Your task to perform on an android device: Open CNN.com Image 0: 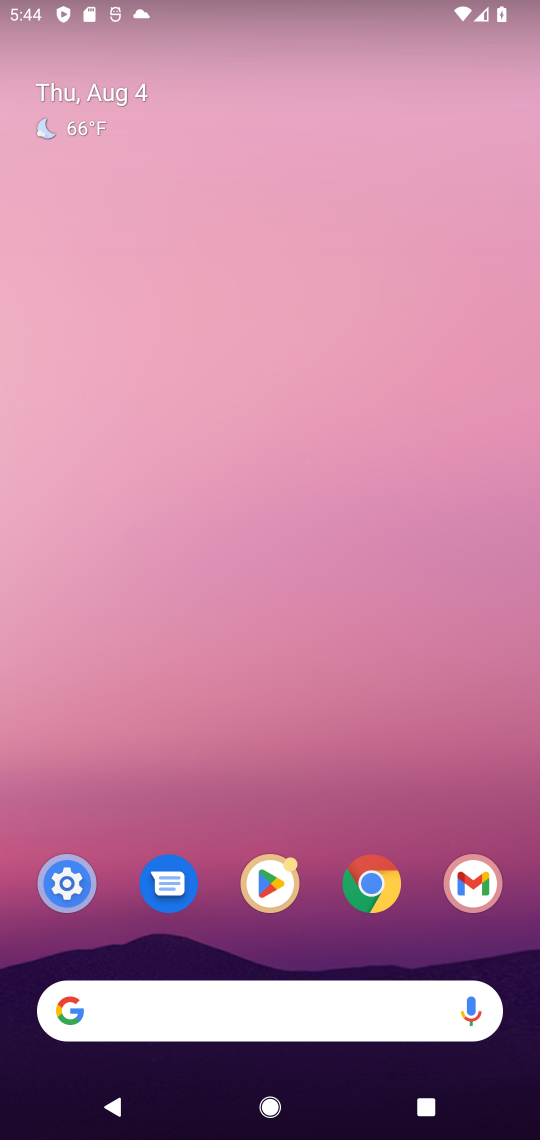
Step 0: click (195, 1024)
Your task to perform on an android device: Open CNN.com Image 1: 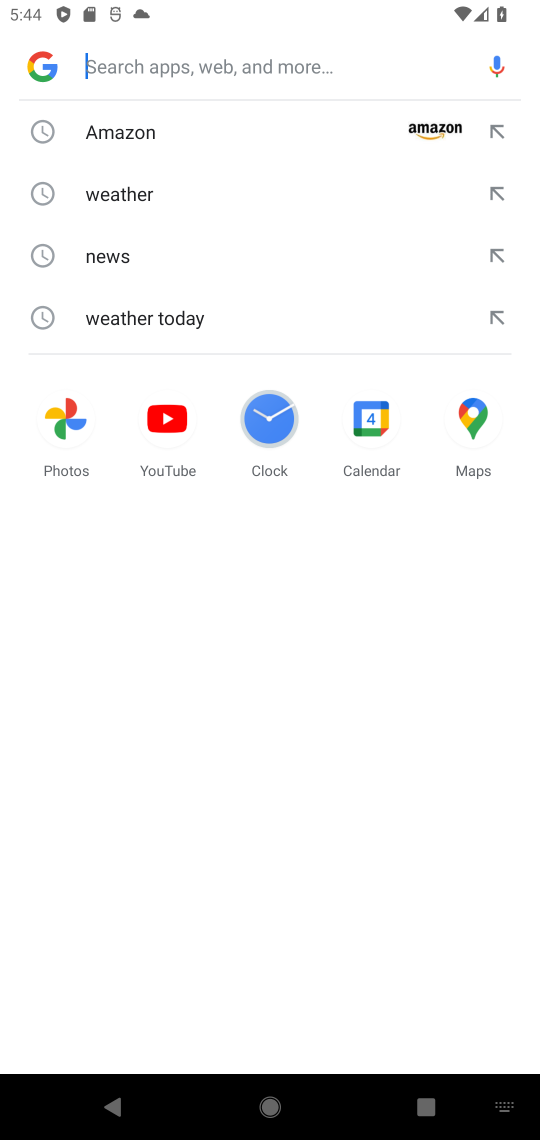
Step 1: type "cnn.com"
Your task to perform on an android device: Open CNN.com Image 2: 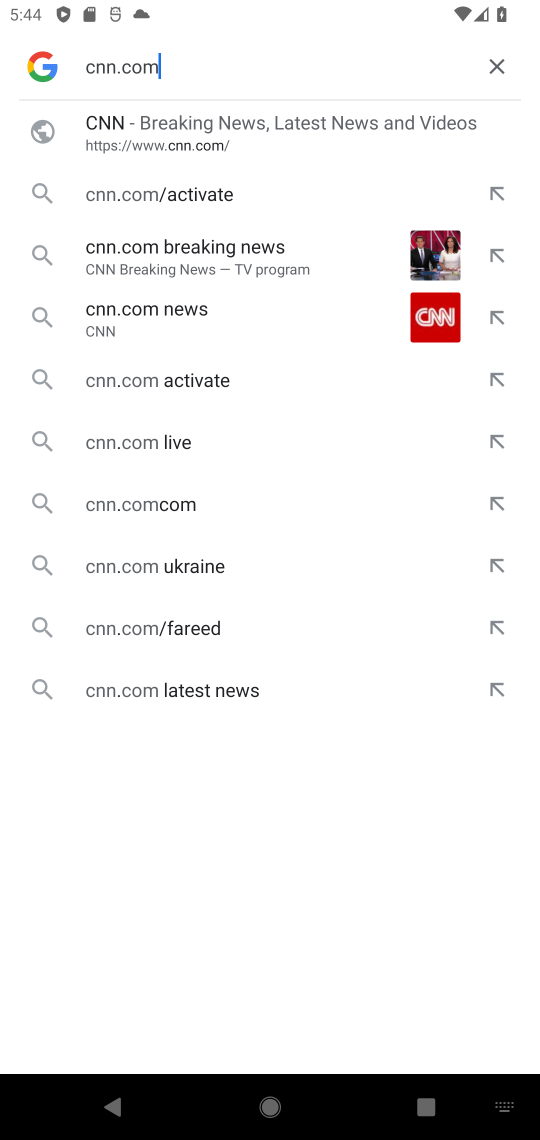
Step 2: click (288, 115)
Your task to perform on an android device: Open CNN.com Image 3: 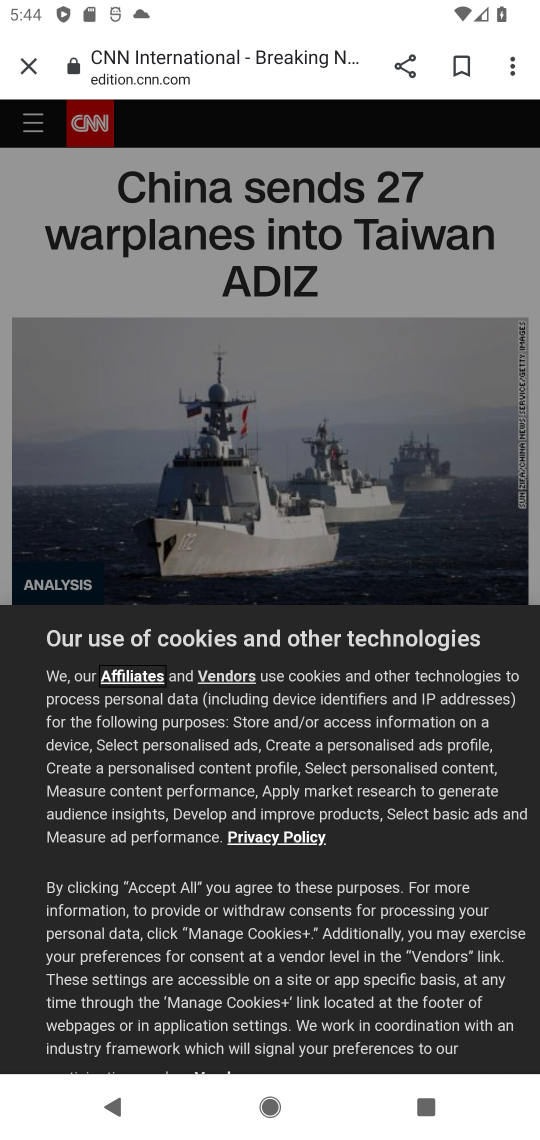
Step 3: task complete